Your task to perform on an android device: delete a single message in the gmail app Image 0: 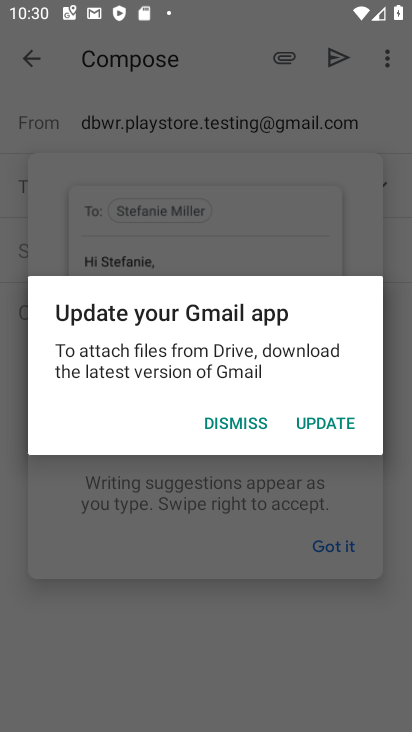
Step 0: click (231, 416)
Your task to perform on an android device: delete a single message in the gmail app Image 1: 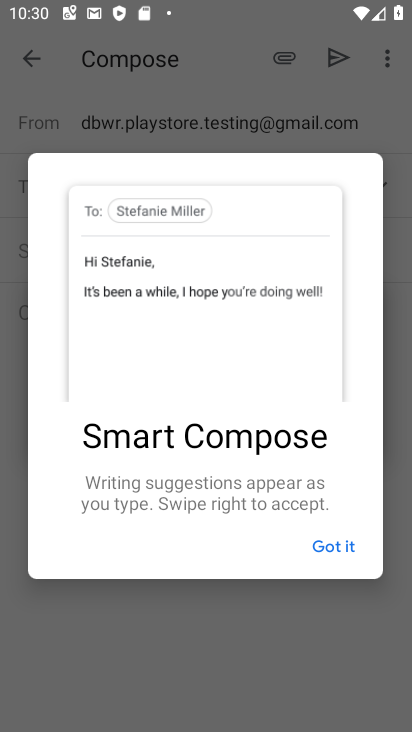
Step 1: press back button
Your task to perform on an android device: delete a single message in the gmail app Image 2: 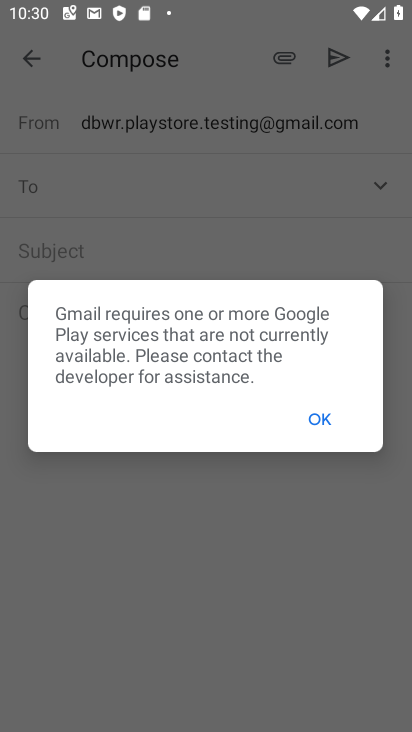
Step 2: press back button
Your task to perform on an android device: delete a single message in the gmail app Image 3: 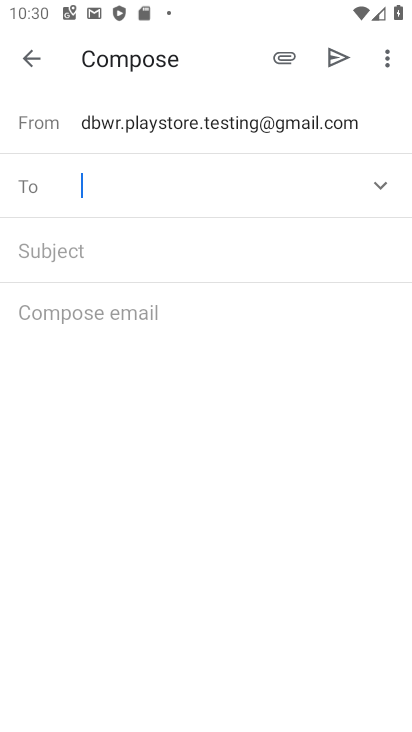
Step 3: press back button
Your task to perform on an android device: delete a single message in the gmail app Image 4: 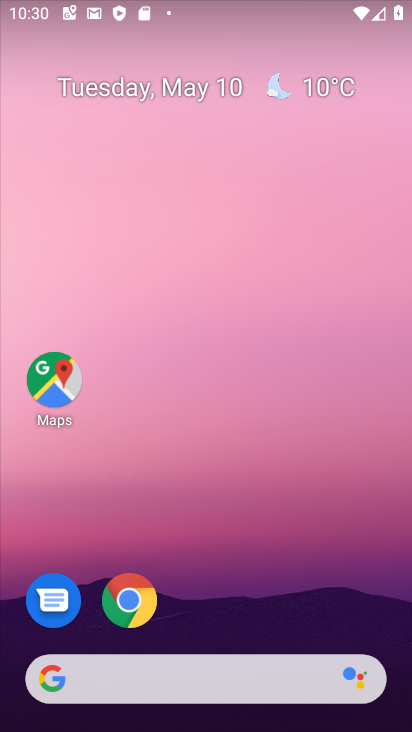
Step 4: drag from (302, 542) to (254, 45)
Your task to perform on an android device: delete a single message in the gmail app Image 5: 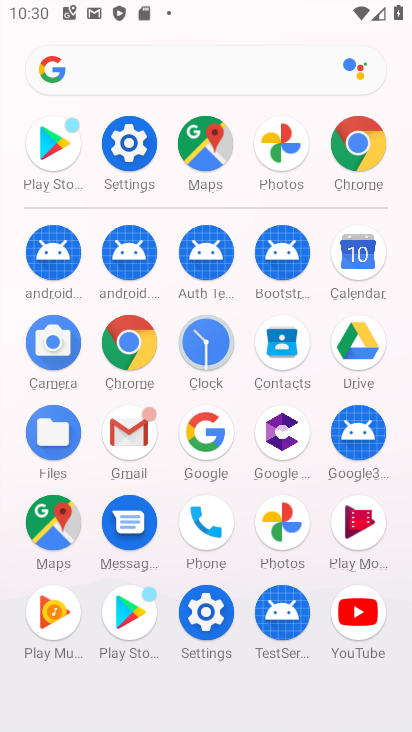
Step 5: drag from (9, 530) to (4, 259)
Your task to perform on an android device: delete a single message in the gmail app Image 6: 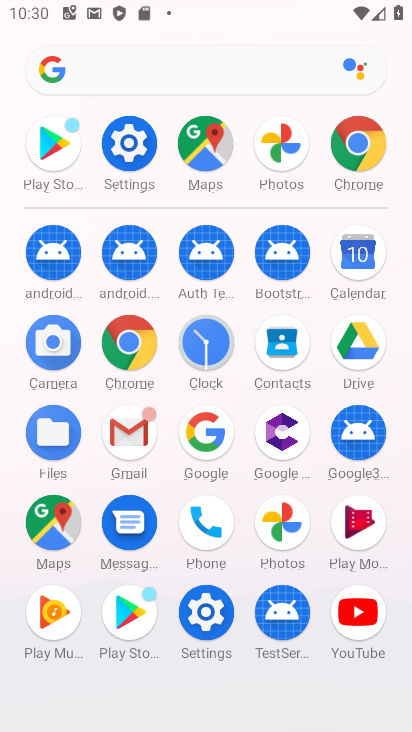
Step 6: click (128, 428)
Your task to perform on an android device: delete a single message in the gmail app Image 7: 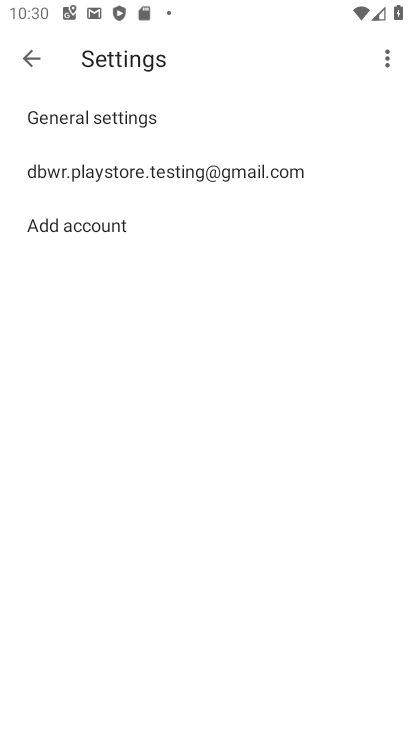
Step 7: click (125, 167)
Your task to perform on an android device: delete a single message in the gmail app Image 8: 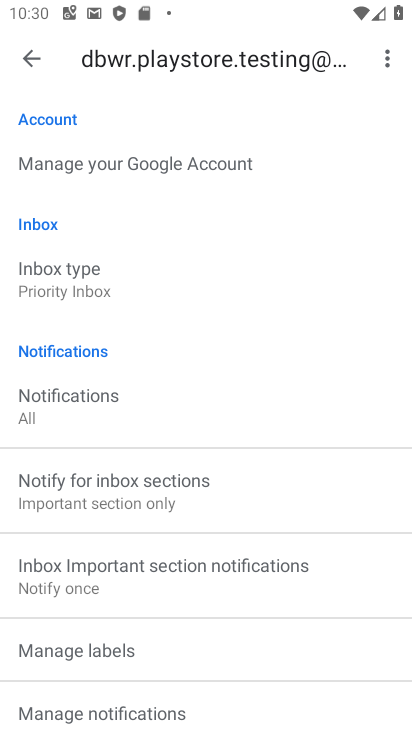
Step 8: drag from (273, 541) to (308, 180)
Your task to perform on an android device: delete a single message in the gmail app Image 9: 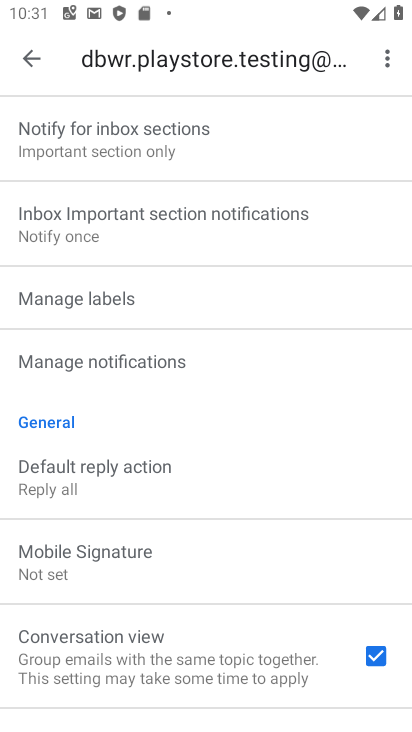
Step 9: drag from (284, 573) to (295, 153)
Your task to perform on an android device: delete a single message in the gmail app Image 10: 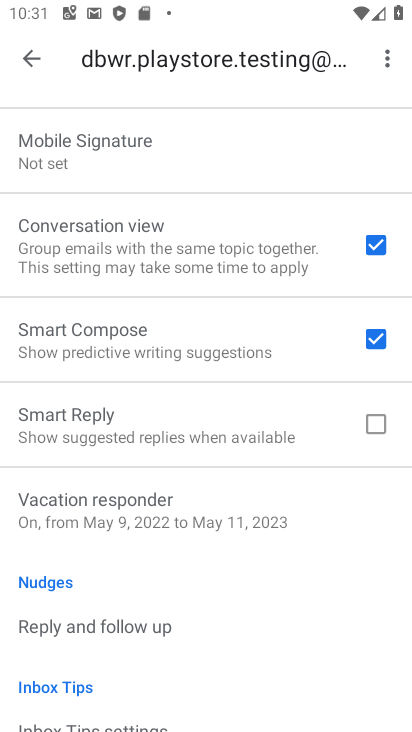
Step 10: drag from (255, 545) to (249, 167)
Your task to perform on an android device: delete a single message in the gmail app Image 11: 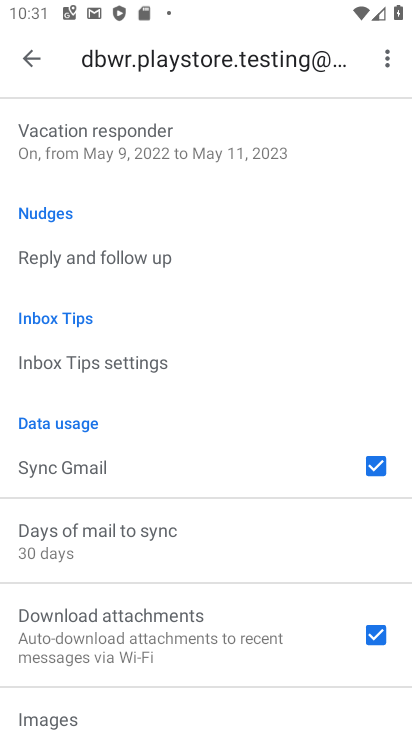
Step 11: drag from (231, 604) to (234, 154)
Your task to perform on an android device: delete a single message in the gmail app Image 12: 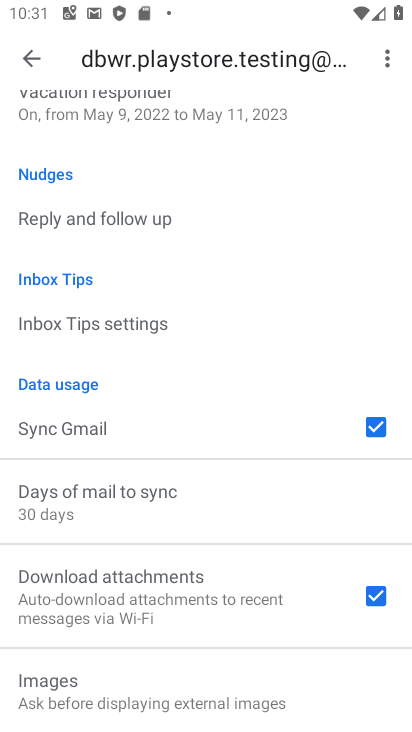
Step 12: drag from (220, 179) to (224, 592)
Your task to perform on an android device: delete a single message in the gmail app Image 13: 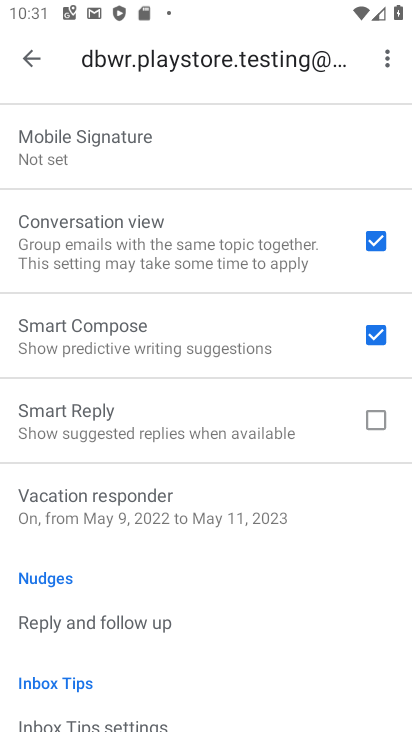
Step 13: click (31, 66)
Your task to perform on an android device: delete a single message in the gmail app Image 14: 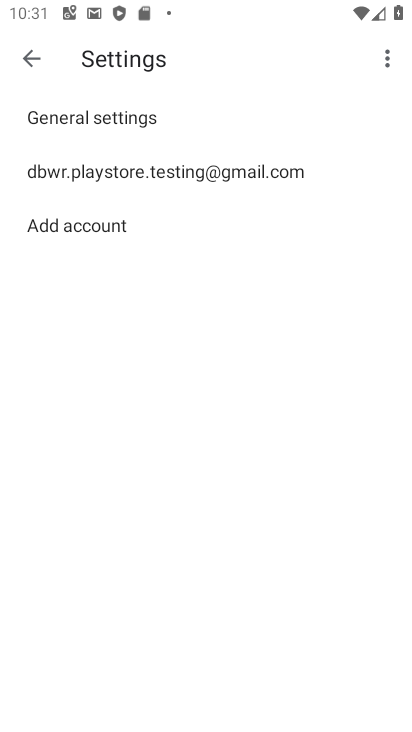
Step 14: click (31, 66)
Your task to perform on an android device: delete a single message in the gmail app Image 15: 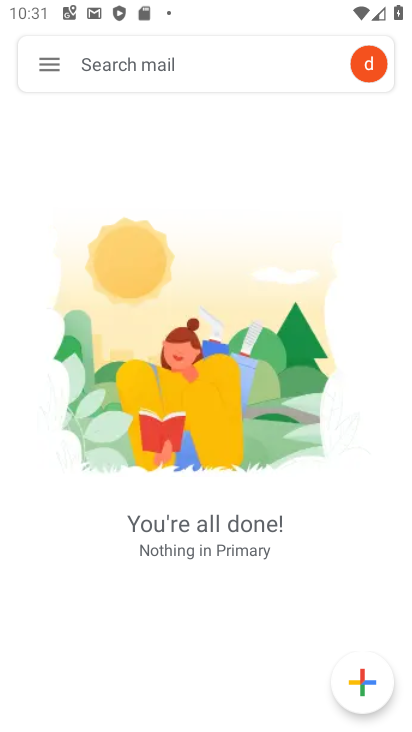
Step 15: click (45, 59)
Your task to perform on an android device: delete a single message in the gmail app Image 16: 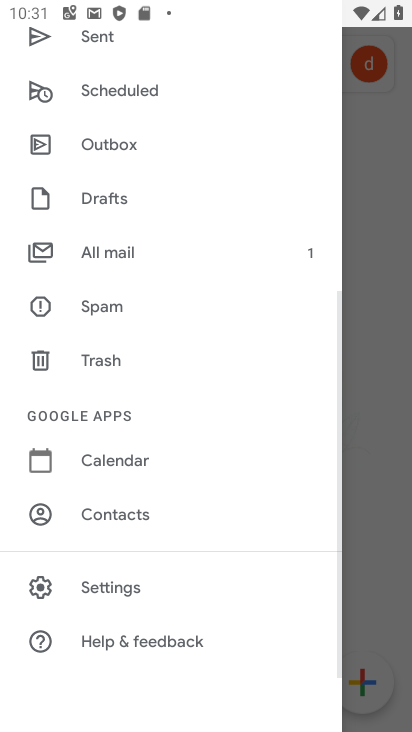
Step 16: click (201, 250)
Your task to perform on an android device: delete a single message in the gmail app Image 17: 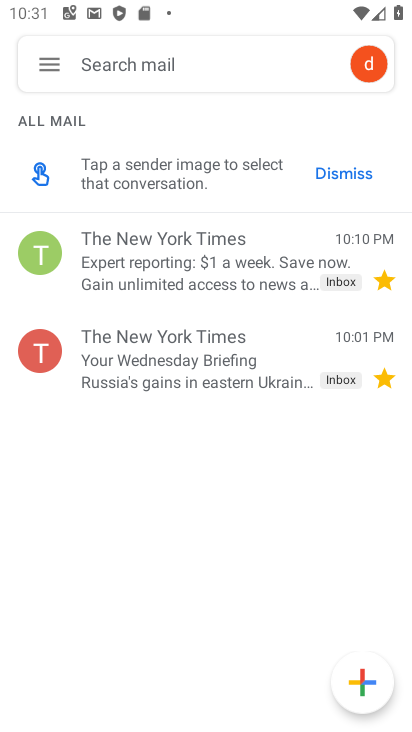
Step 17: click (201, 250)
Your task to perform on an android device: delete a single message in the gmail app Image 18: 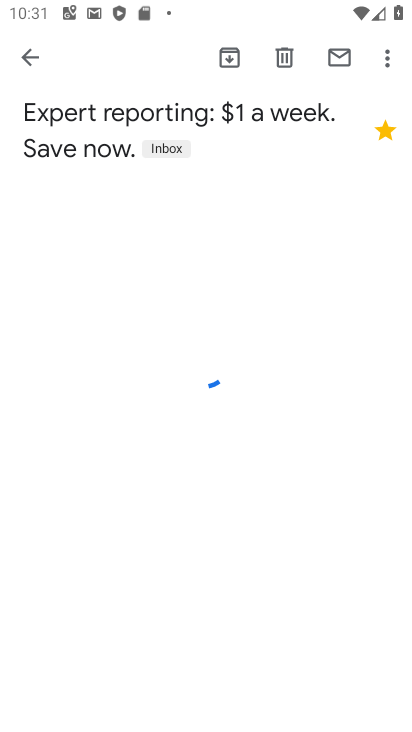
Step 18: click (278, 47)
Your task to perform on an android device: delete a single message in the gmail app Image 19: 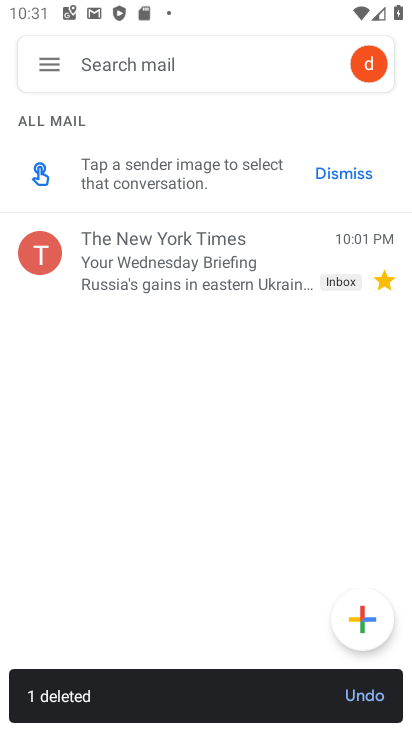
Step 19: task complete